Your task to perform on an android device: turn on improve location accuracy Image 0: 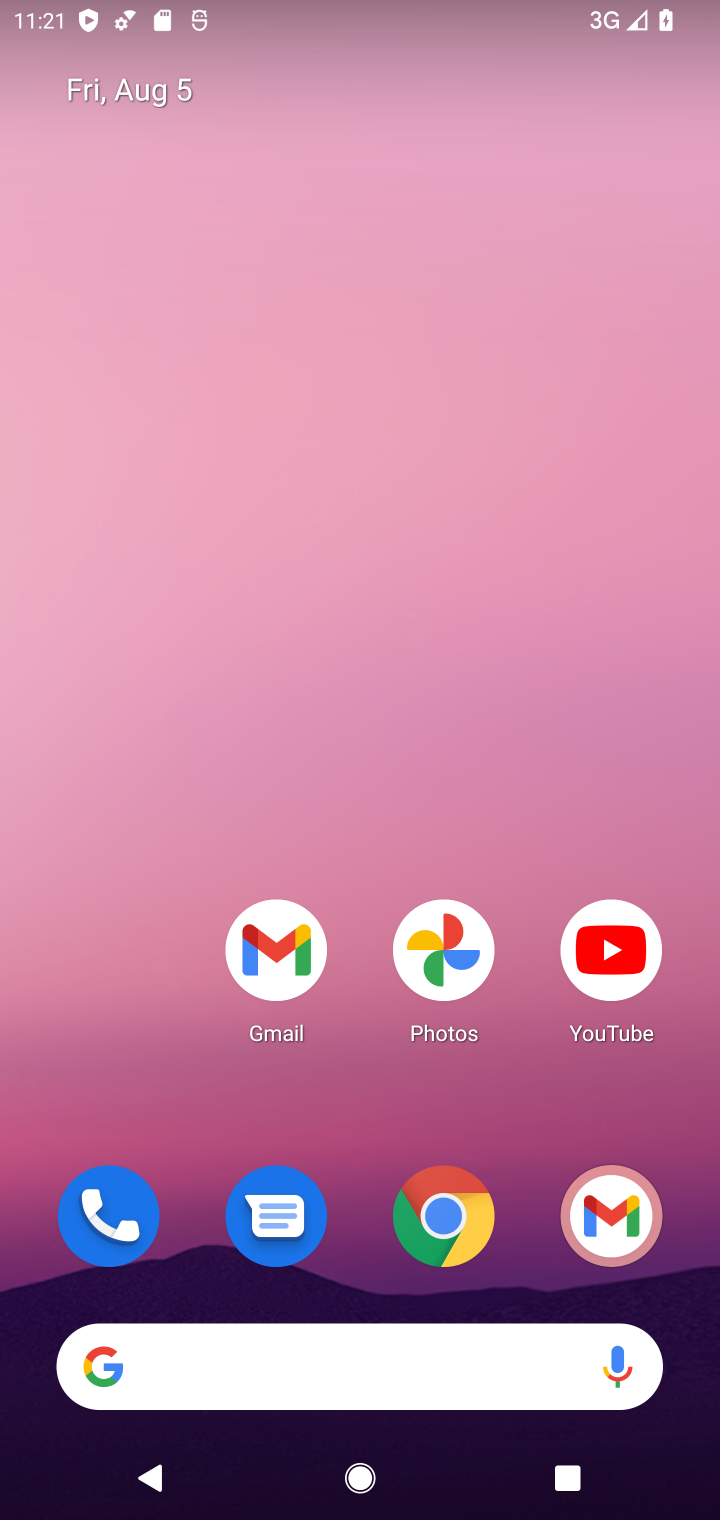
Step 0: drag from (389, 1170) to (453, 305)
Your task to perform on an android device: turn on improve location accuracy Image 1: 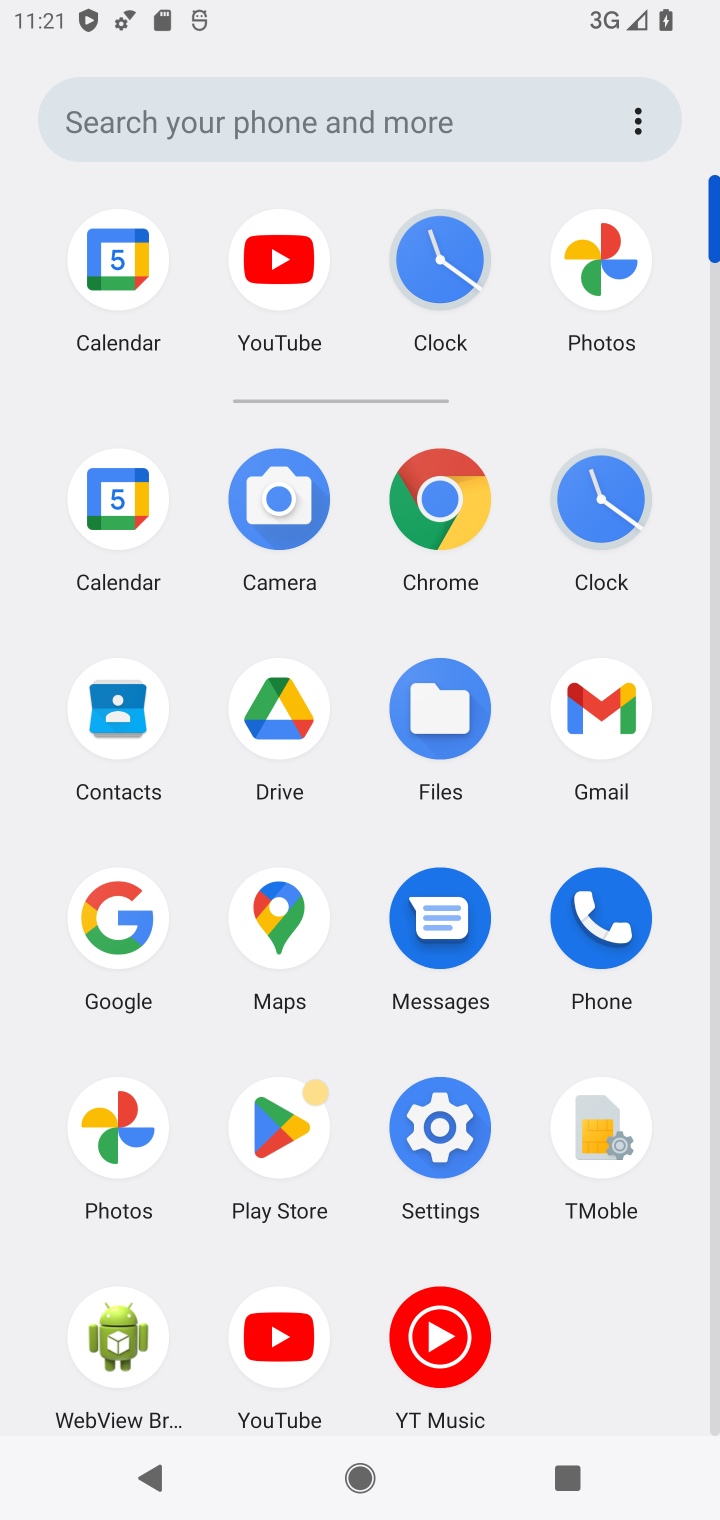
Step 1: click (465, 1136)
Your task to perform on an android device: turn on improve location accuracy Image 2: 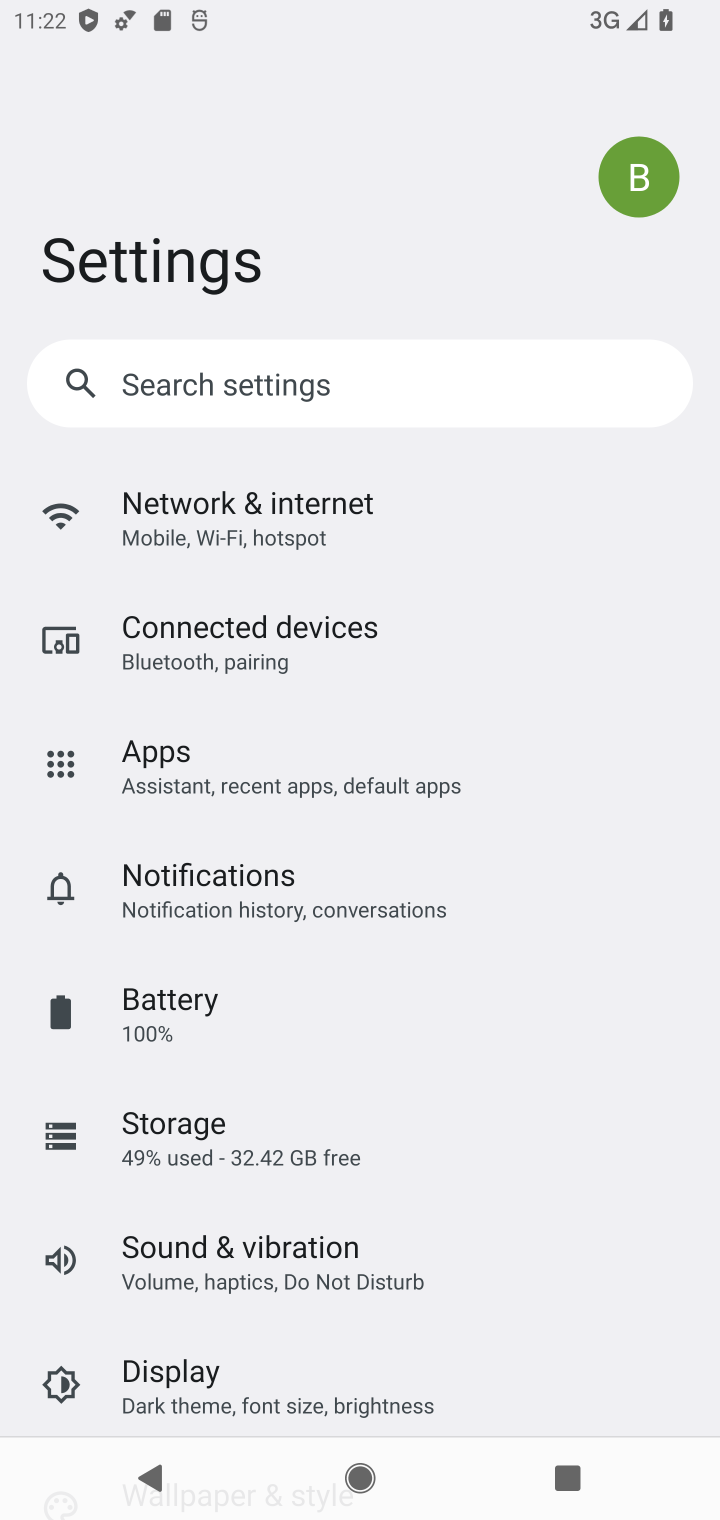
Step 2: drag from (500, 1371) to (488, 819)
Your task to perform on an android device: turn on improve location accuracy Image 3: 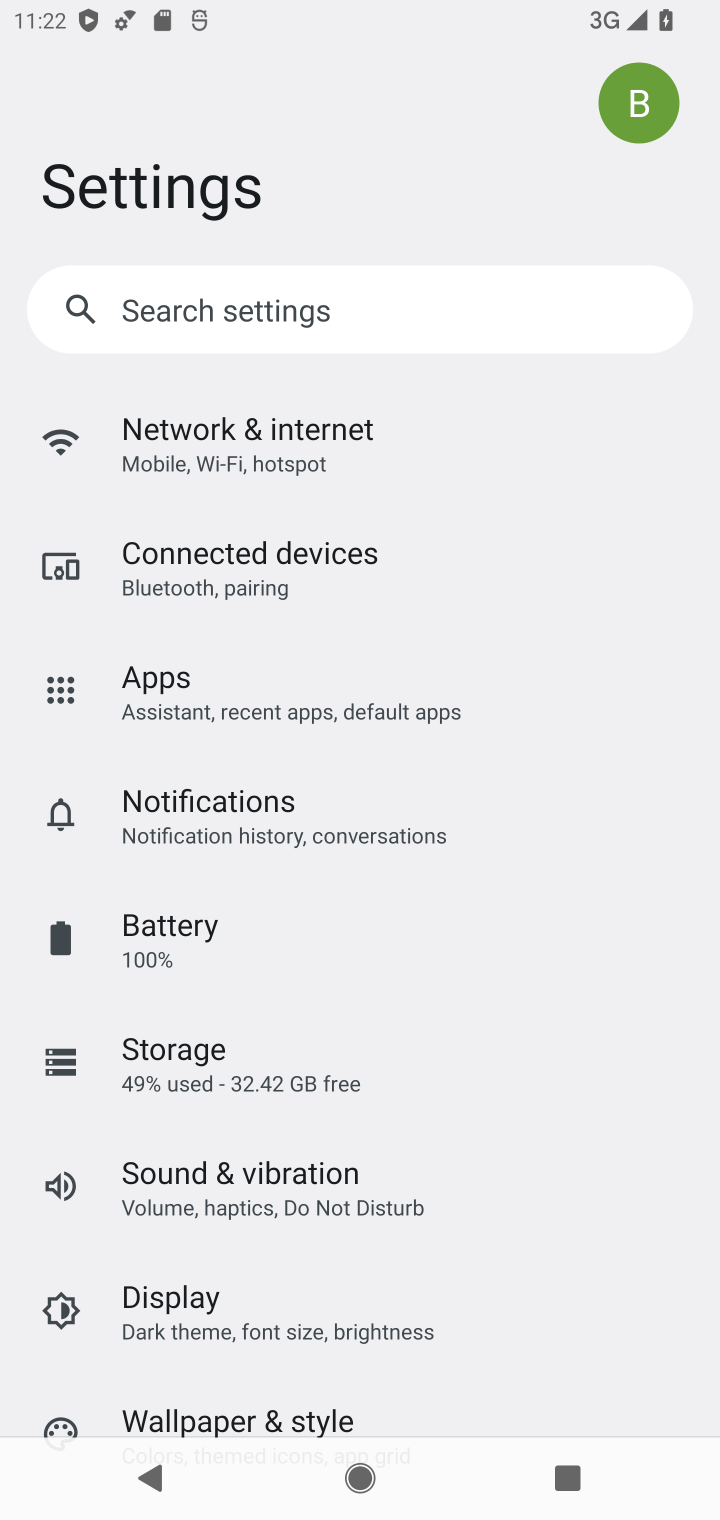
Step 3: drag from (502, 1382) to (502, 613)
Your task to perform on an android device: turn on improve location accuracy Image 4: 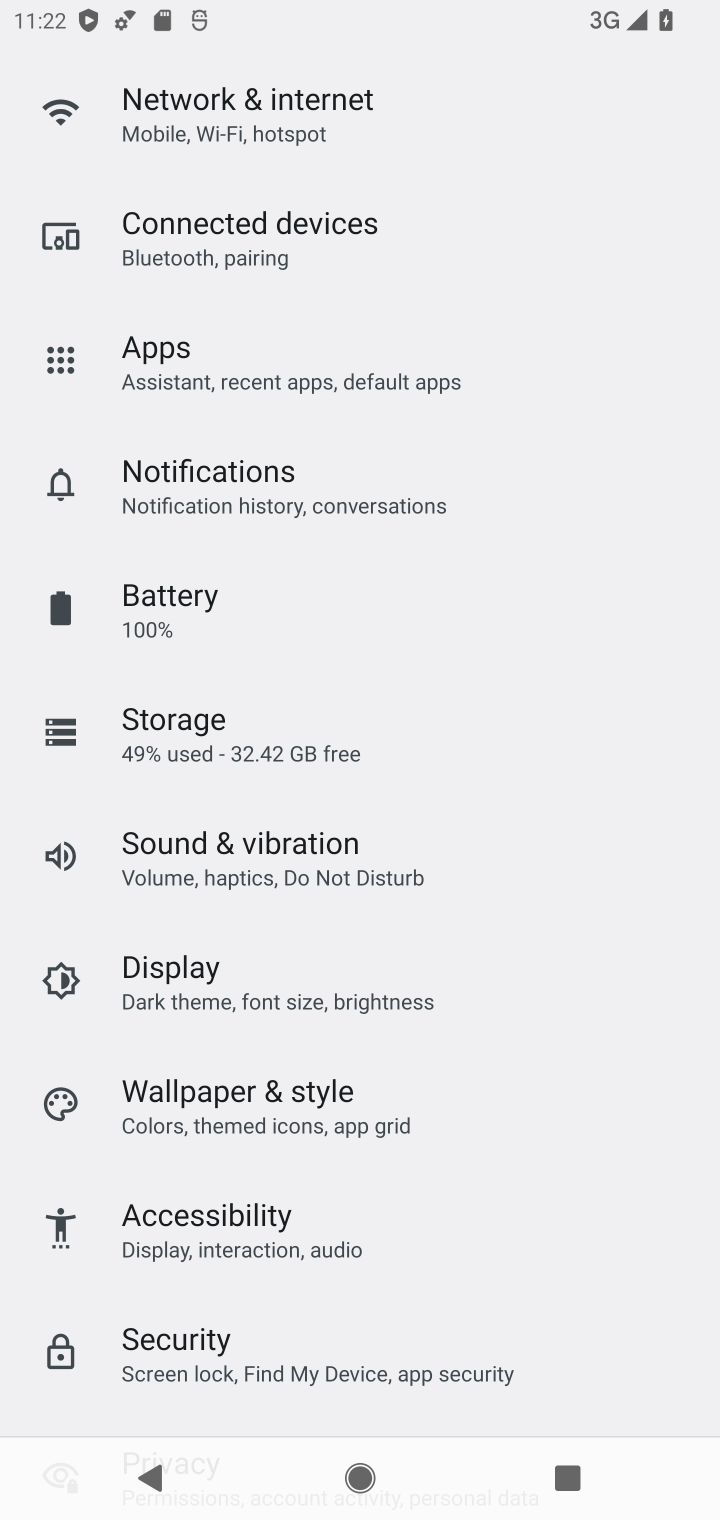
Step 4: drag from (585, 1395) to (585, 414)
Your task to perform on an android device: turn on improve location accuracy Image 5: 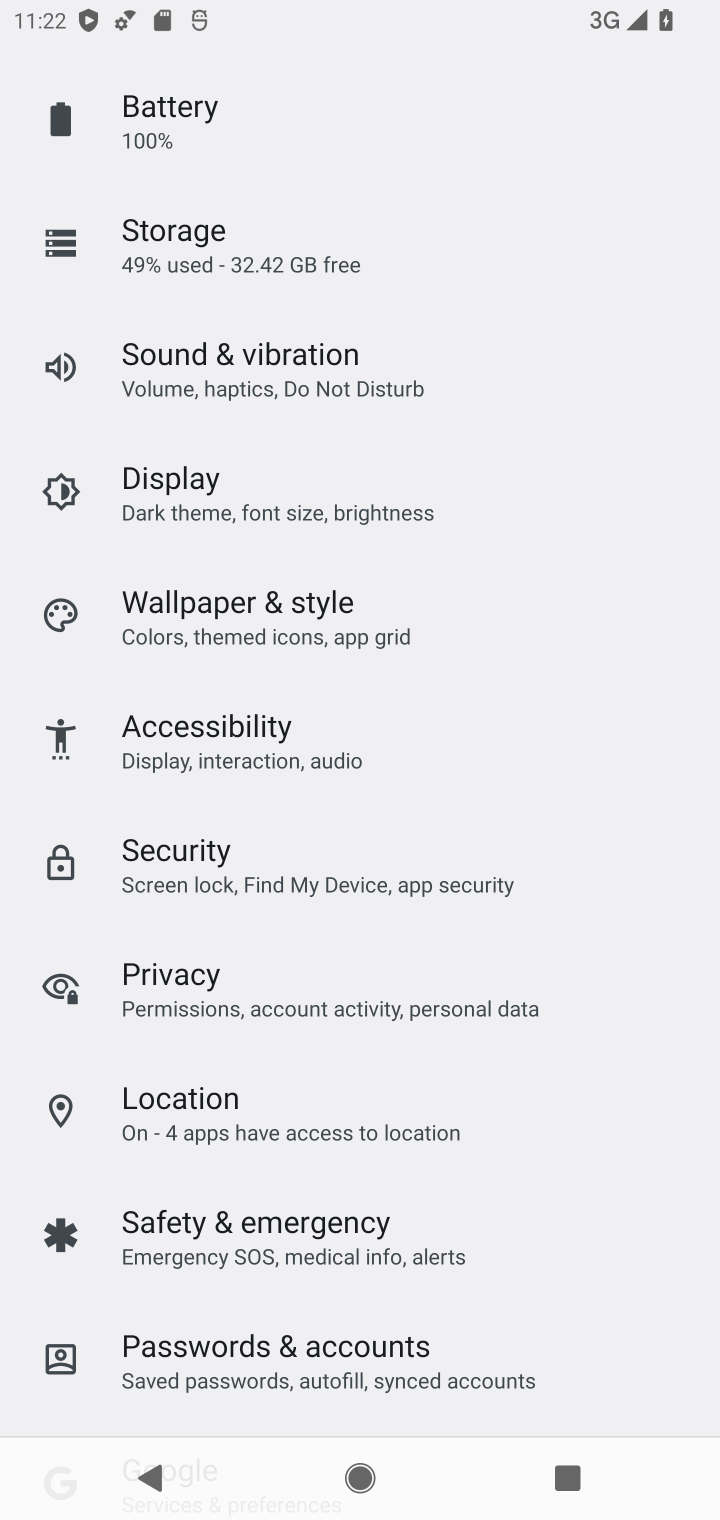
Step 5: click (284, 1117)
Your task to perform on an android device: turn on improve location accuracy Image 6: 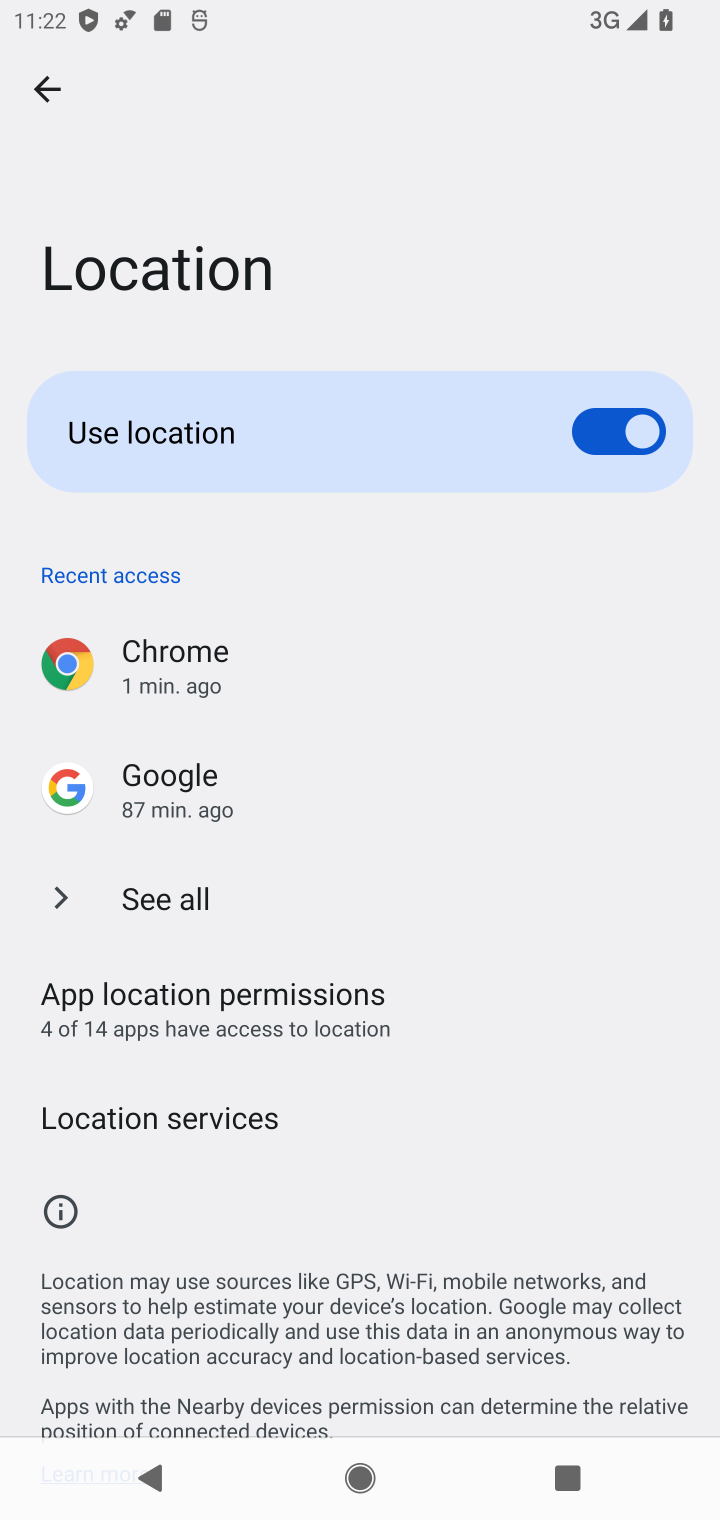
Step 6: click (284, 1117)
Your task to perform on an android device: turn on improve location accuracy Image 7: 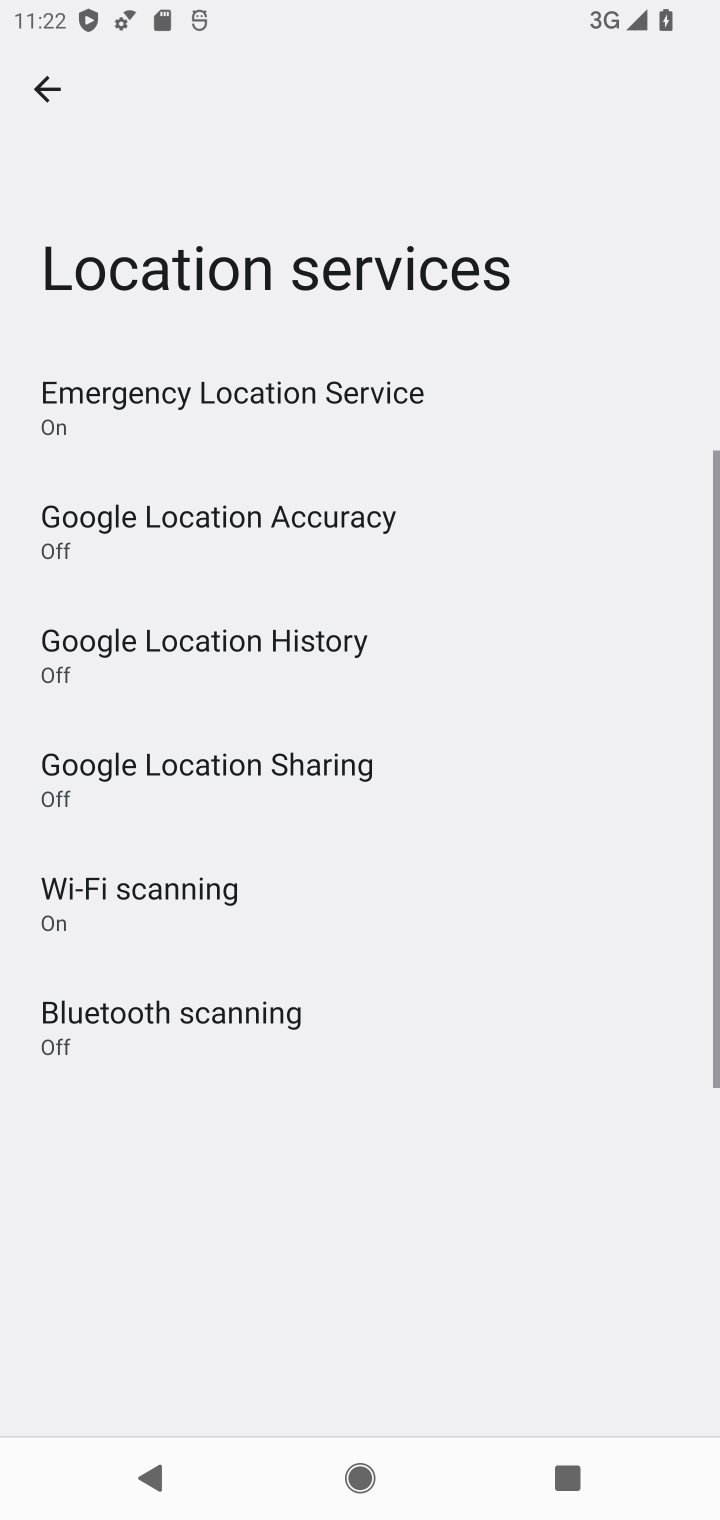
Step 7: click (307, 543)
Your task to perform on an android device: turn on improve location accuracy Image 8: 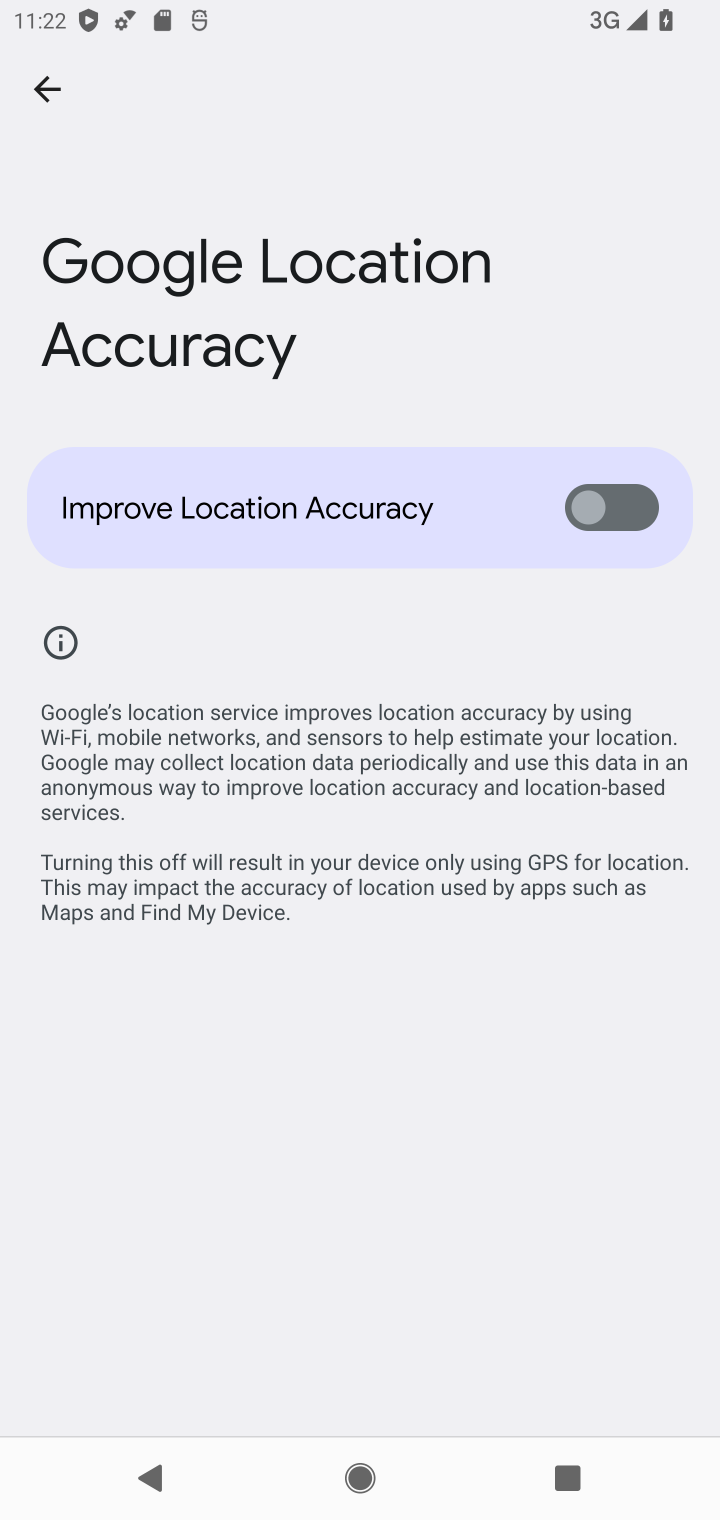
Step 8: click (636, 498)
Your task to perform on an android device: turn on improve location accuracy Image 9: 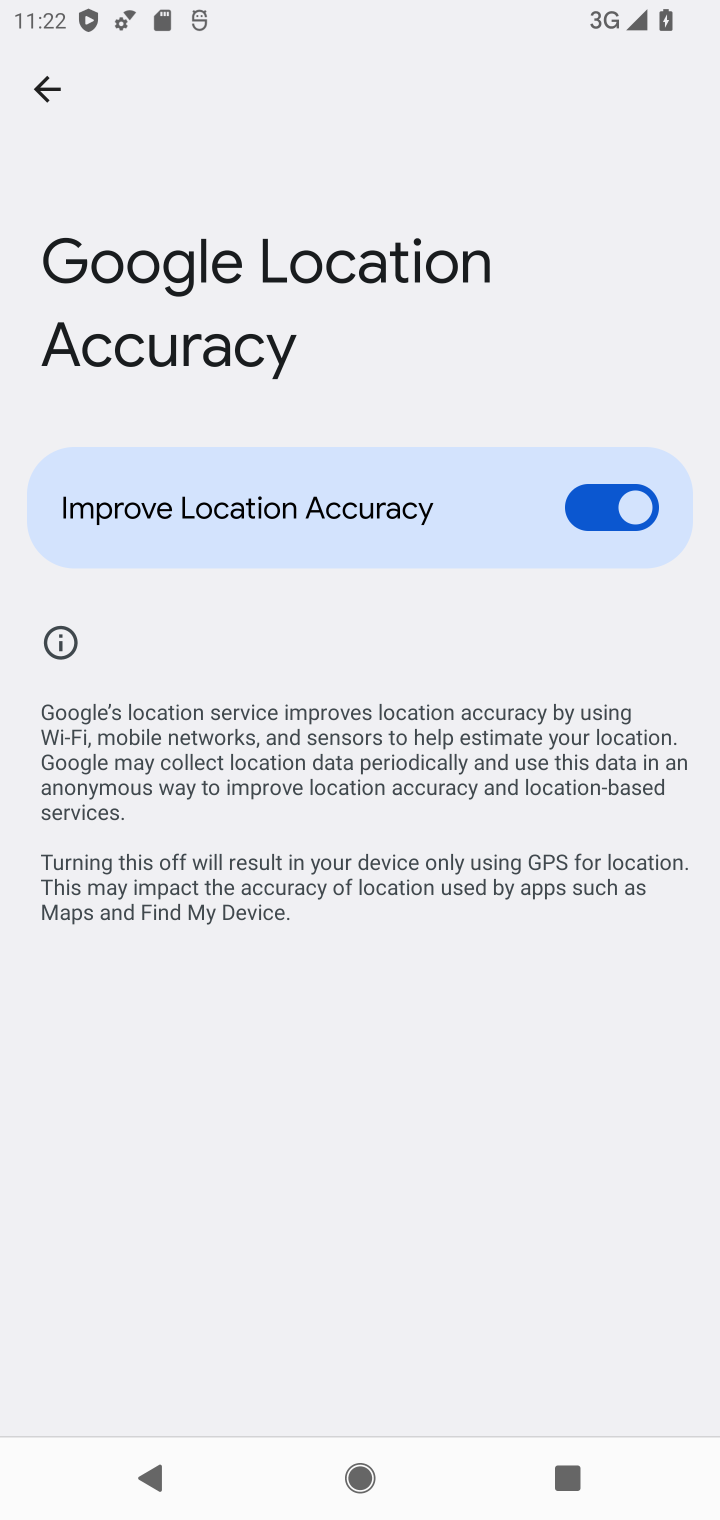
Step 9: task complete